Your task to perform on an android device: turn off data saver in the chrome app Image 0: 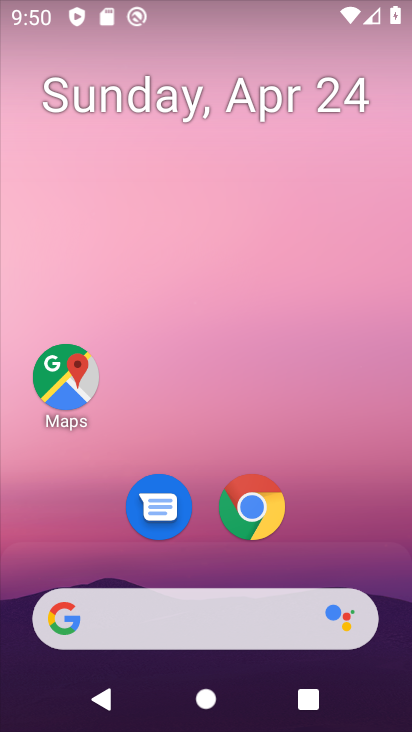
Step 0: click (251, 505)
Your task to perform on an android device: turn off data saver in the chrome app Image 1: 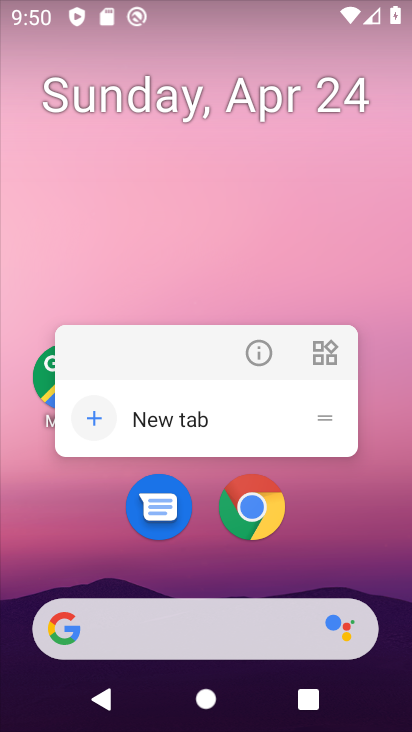
Step 1: click (259, 358)
Your task to perform on an android device: turn off data saver in the chrome app Image 2: 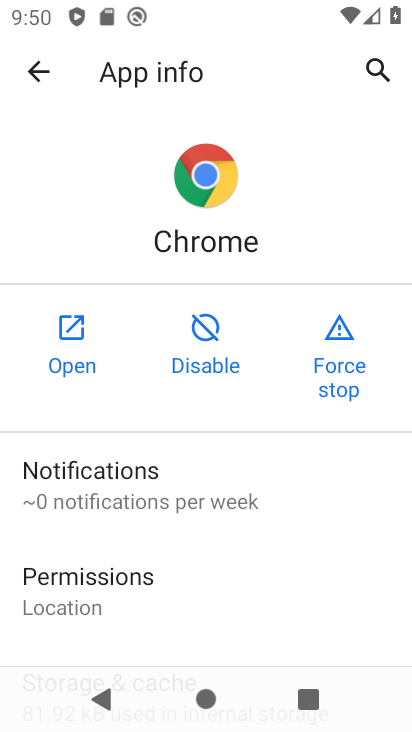
Step 2: click (62, 338)
Your task to perform on an android device: turn off data saver in the chrome app Image 3: 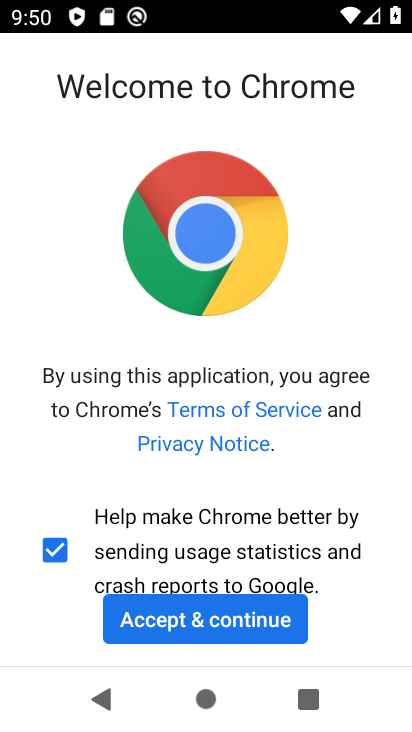
Step 3: click (159, 624)
Your task to perform on an android device: turn off data saver in the chrome app Image 4: 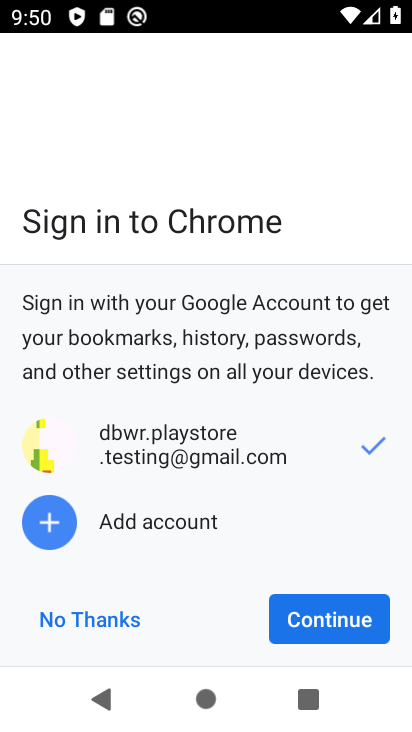
Step 4: click (352, 604)
Your task to perform on an android device: turn off data saver in the chrome app Image 5: 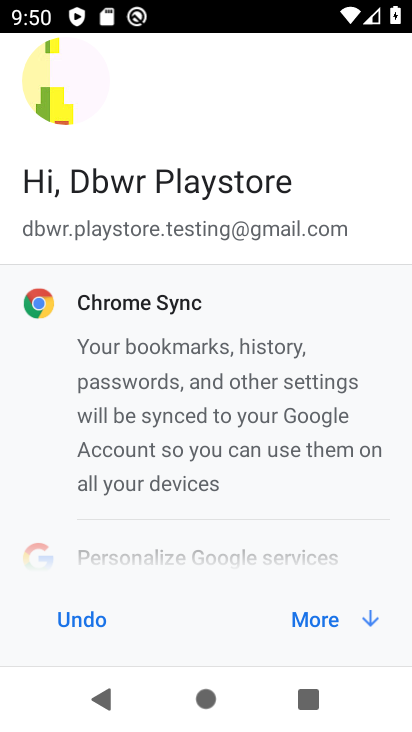
Step 5: click (332, 615)
Your task to perform on an android device: turn off data saver in the chrome app Image 6: 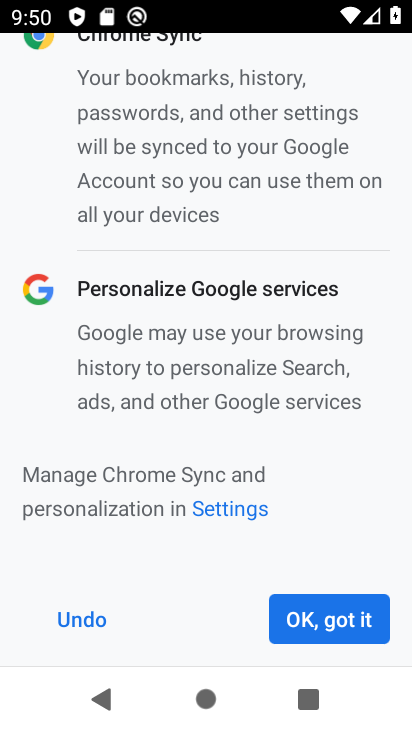
Step 6: click (330, 613)
Your task to perform on an android device: turn off data saver in the chrome app Image 7: 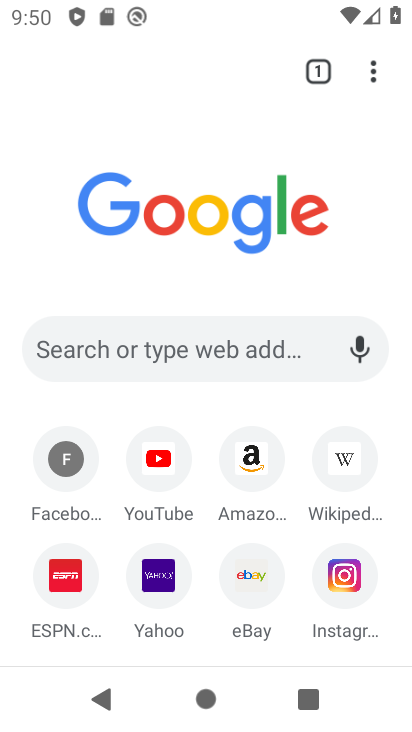
Step 7: click (380, 71)
Your task to perform on an android device: turn off data saver in the chrome app Image 8: 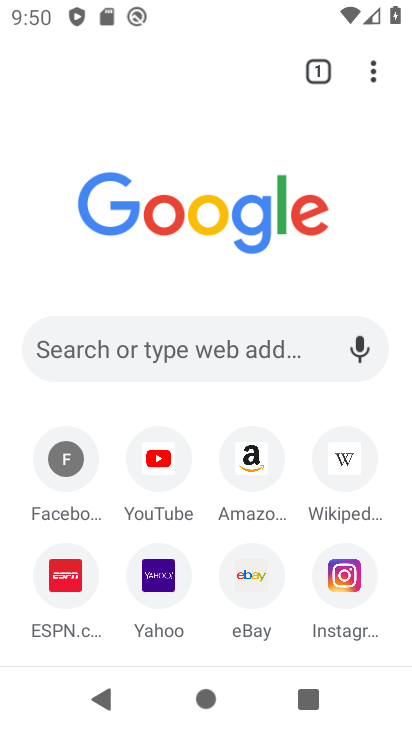
Step 8: click (374, 73)
Your task to perform on an android device: turn off data saver in the chrome app Image 9: 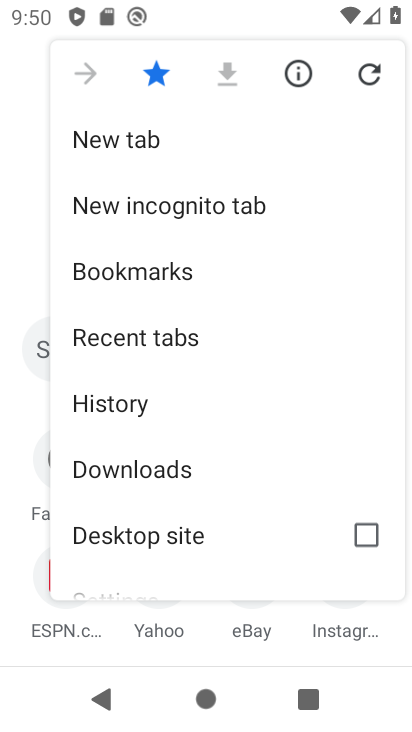
Step 9: drag from (186, 434) to (193, 94)
Your task to perform on an android device: turn off data saver in the chrome app Image 10: 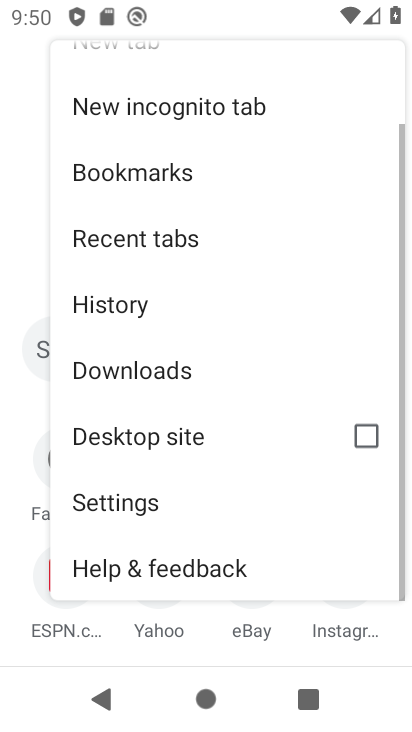
Step 10: click (109, 504)
Your task to perform on an android device: turn off data saver in the chrome app Image 11: 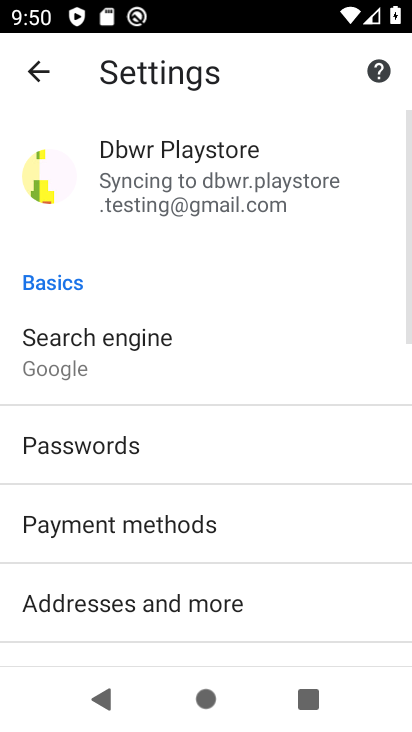
Step 11: drag from (113, 563) to (145, 186)
Your task to perform on an android device: turn off data saver in the chrome app Image 12: 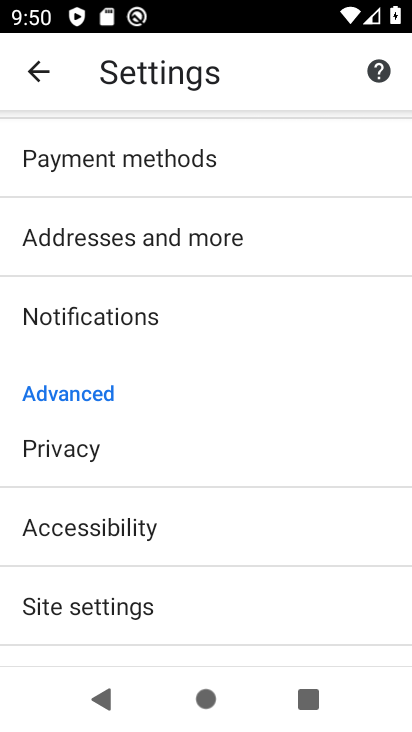
Step 12: drag from (127, 597) to (137, 291)
Your task to perform on an android device: turn off data saver in the chrome app Image 13: 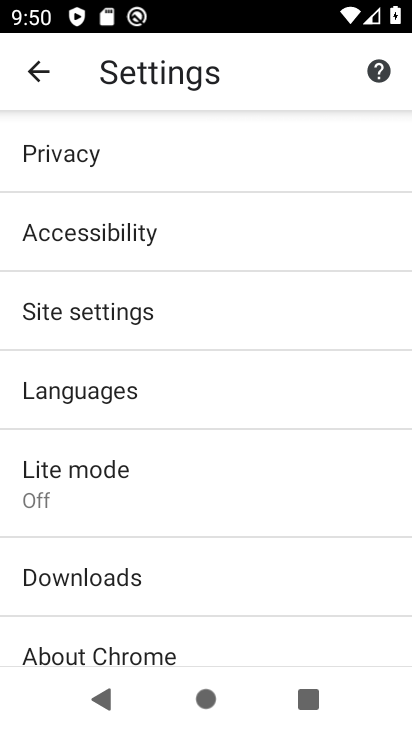
Step 13: click (93, 481)
Your task to perform on an android device: turn off data saver in the chrome app Image 14: 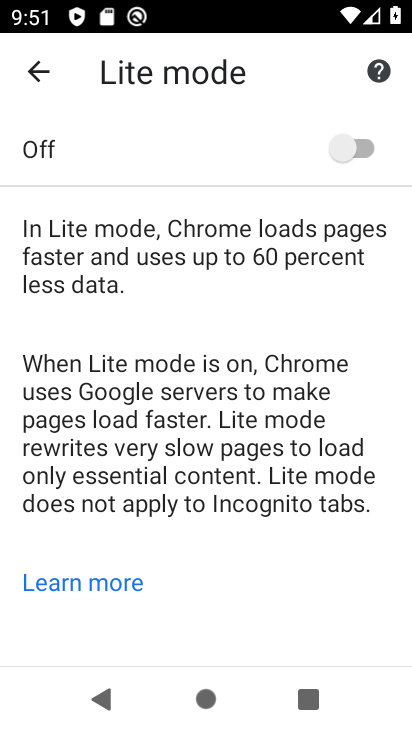
Step 14: task complete